Your task to perform on an android device: When is my next appointment? Image 0: 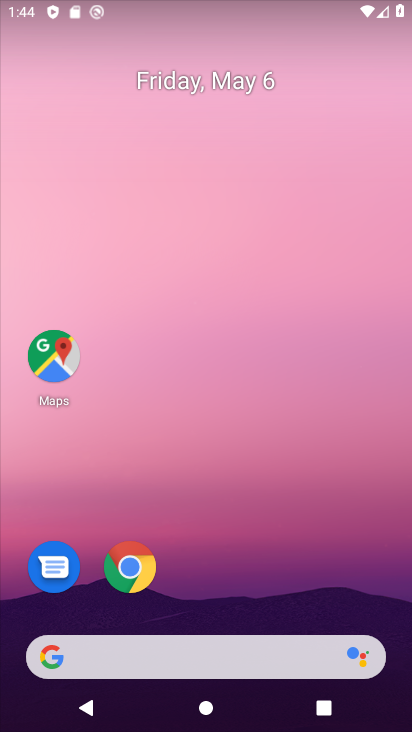
Step 0: drag from (384, 615) to (327, 20)
Your task to perform on an android device: When is my next appointment? Image 1: 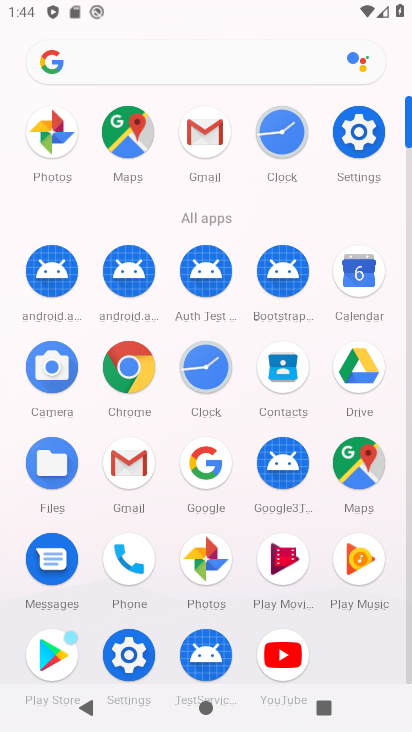
Step 1: click (407, 672)
Your task to perform on an android device: When is my next appointment? Image 2: 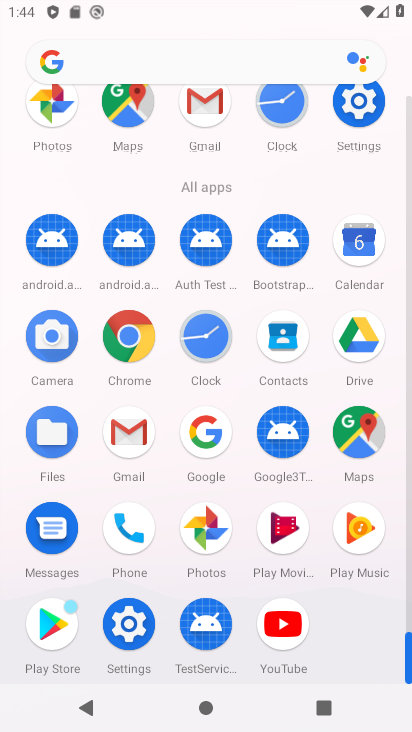
Step 2: click (359, 238)
Your task to perform on an android device: When is my next appointment? Image 3: 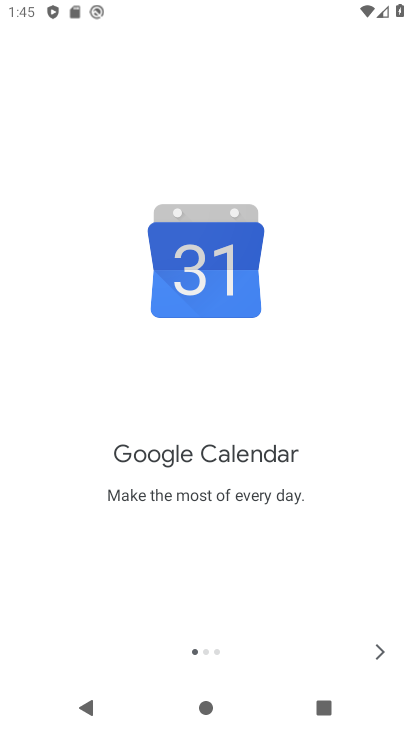
Step 3: click (375, 647)
Your task to perform on an android device: When is my next appointment? Image 4: 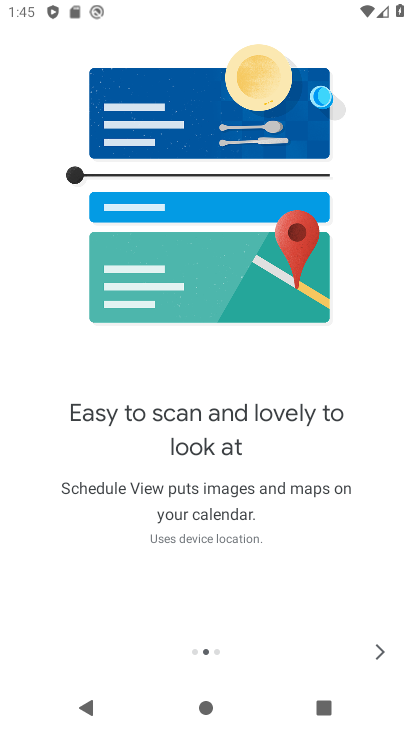
Step 4: click (375, 647)
Your task to perform on an android device: When is my next appointment? Image 5: 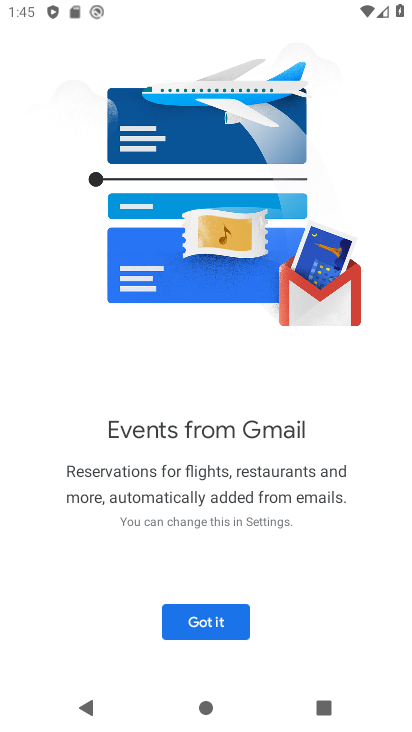
Step 5: click (205, 619)
Your task to perform on an android device: When is my next appointment? Image 6: 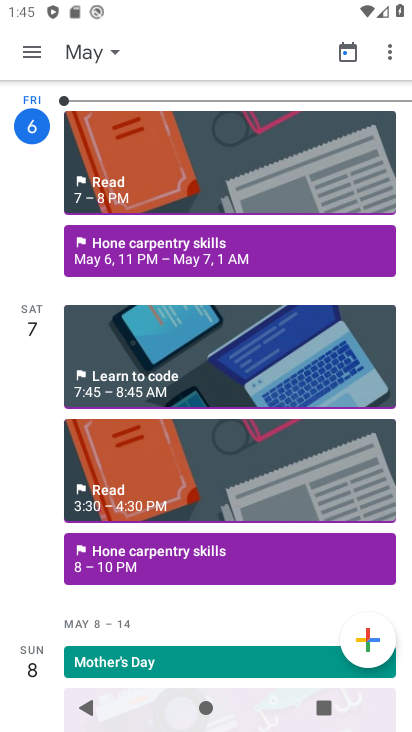
Step 6: click (34, 50)
Your task to perform on an android device: When is my next appointment? Image 7: 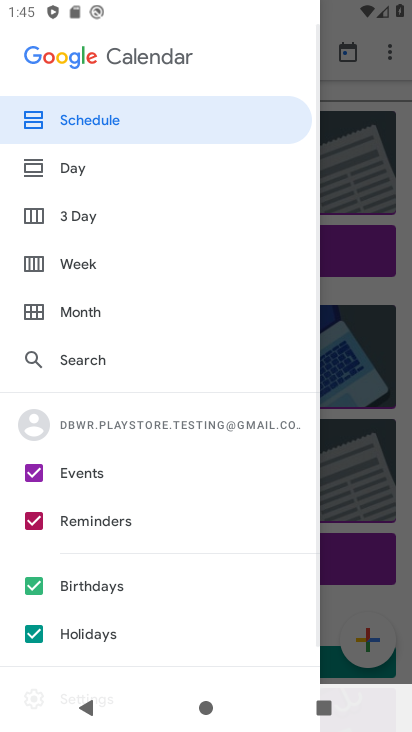
Step 7: click (91, 117)
Your task to perform on an android device: When is my next appointment? Image 8: 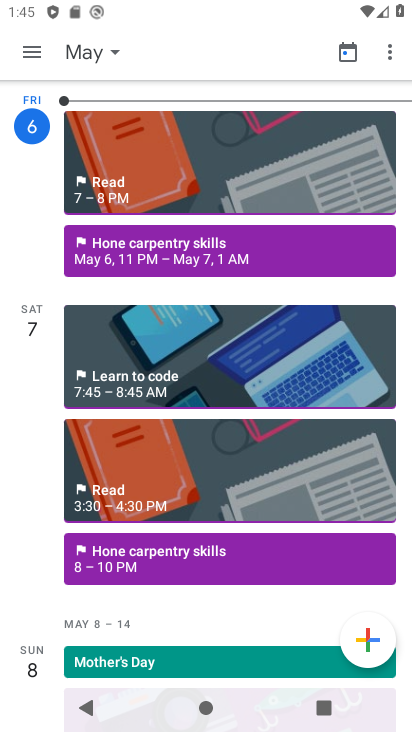
Step 8: task complete